Your task to perform on an android device: Show me productivity apps on the Play Store Image 0: 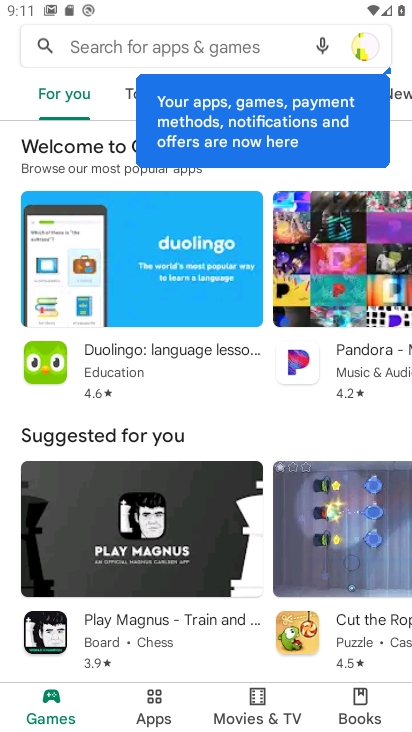
Step 0: click (145, 703)
Your task to perform on an android device: Show me productivity apps on the Play Store Image 1: 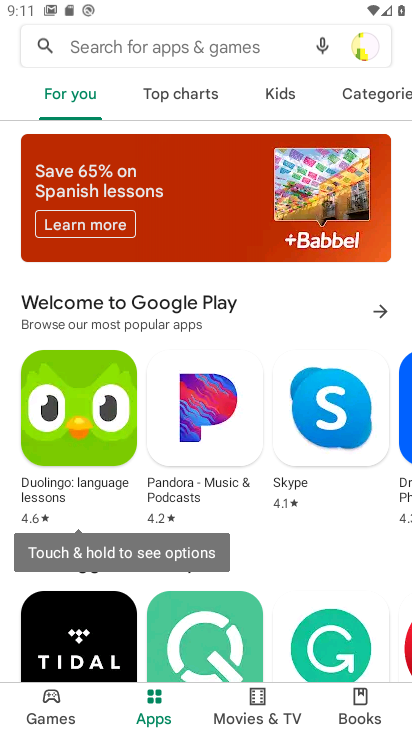
Step 1: task complete